Your task to perform on an android device: manage bookmarks in the chrome app Image 0: 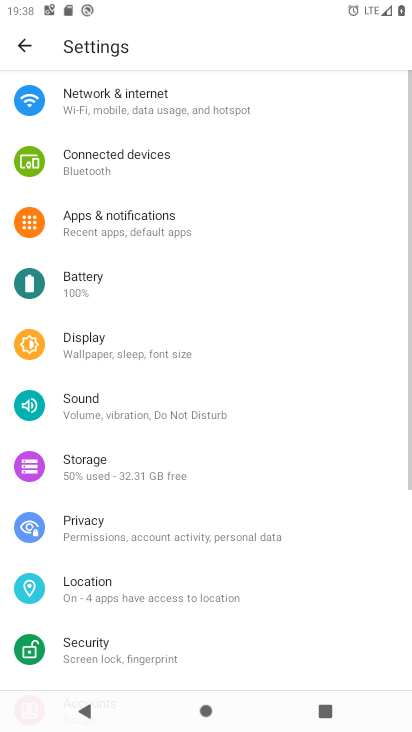
Step 0: press home button
Your task to perform on an android device: manage bookmarks in the chrome app Image 1: 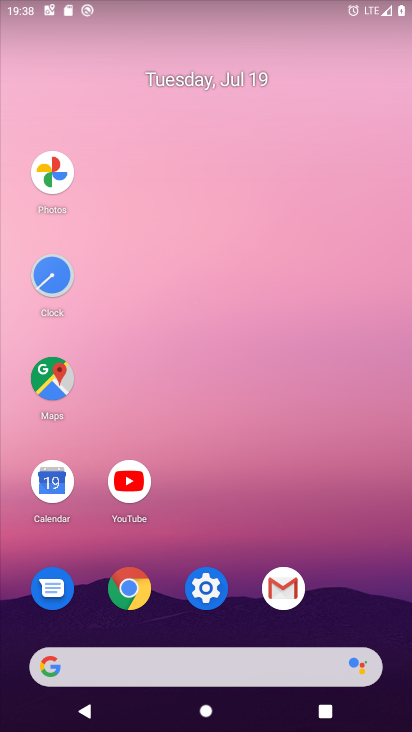
Step 1: click (131, 583)
Your task to perform on an android device: manage bookmarks in the chrome app Image 2: 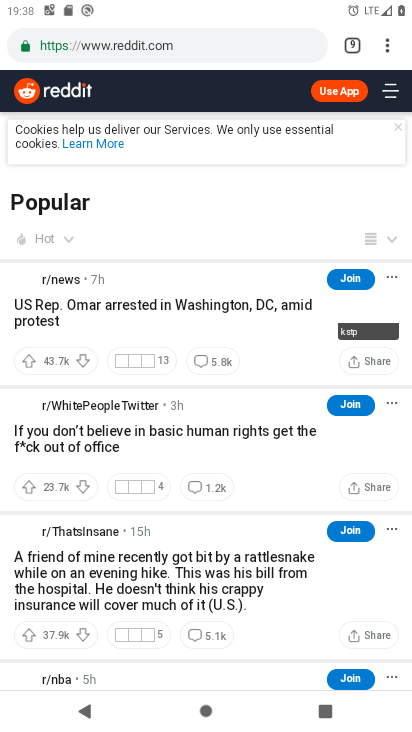
Step 2: click (388, 42)
Your task to perform on an android device: manage bookmarks in the chrome app Image 3: 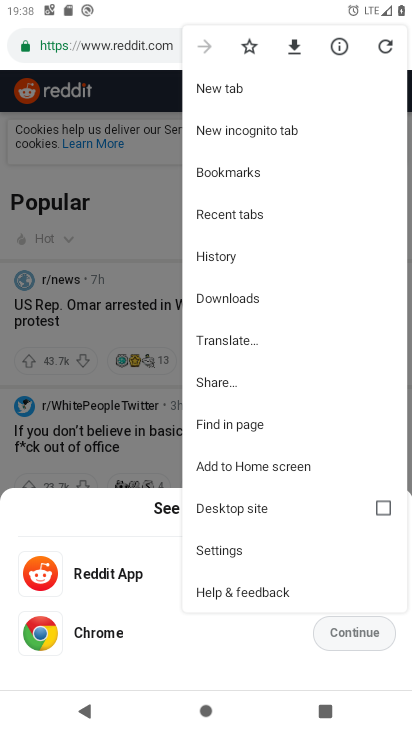
Step 3: click (237, 162)
Your task to perform on an android device: manage bookmarks in the chrome app Image 4: 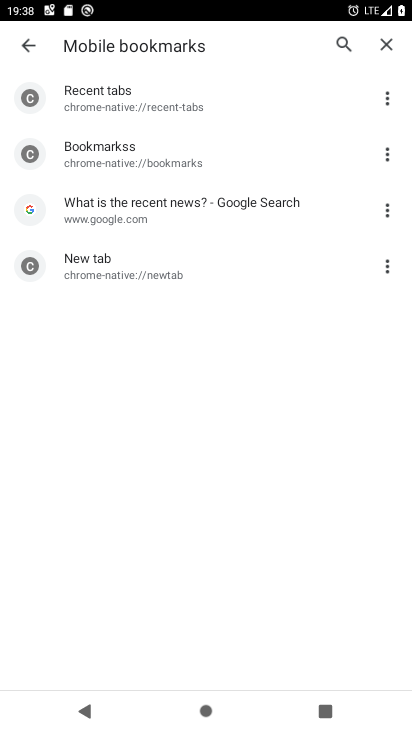
Step 4: click (391, 95)
Your task to perform on an android device: manage bookmarks in the chrome app Image 5: 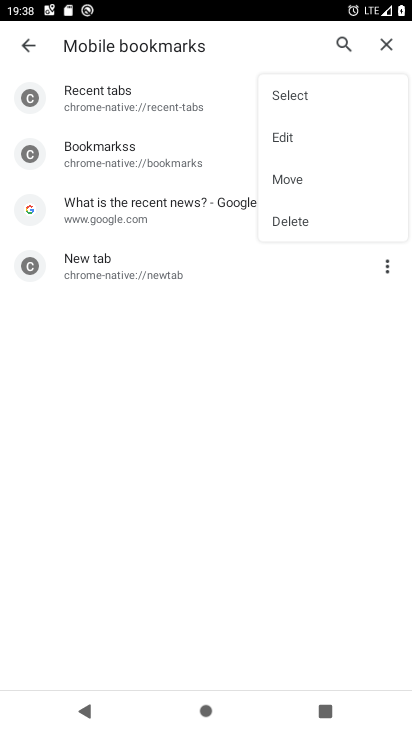
Step 5: click (286, 132)
Your task to perform on an android device: manage bookmarks in the chrome app Image 6: 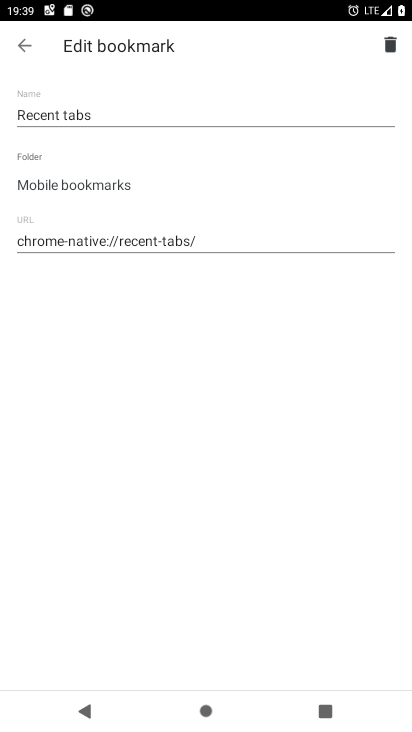
Step 6: task complete